Your task to perform on an android device: refresh tabs in the chrome app Image 0: 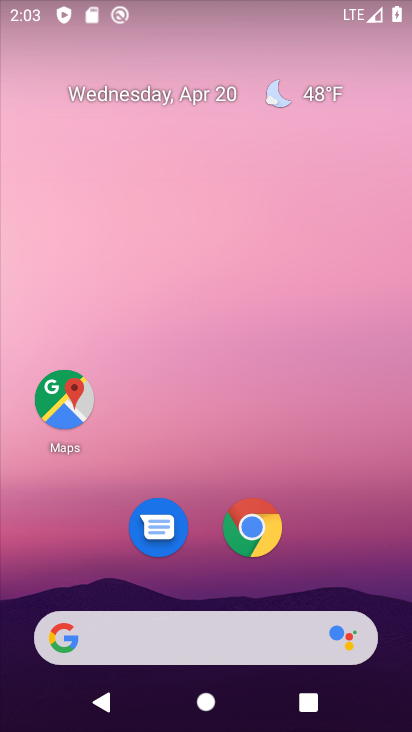
Step 0: click (260, 527)
Your task to perform on an android device: refresh tabs in the chrome app Image 1: 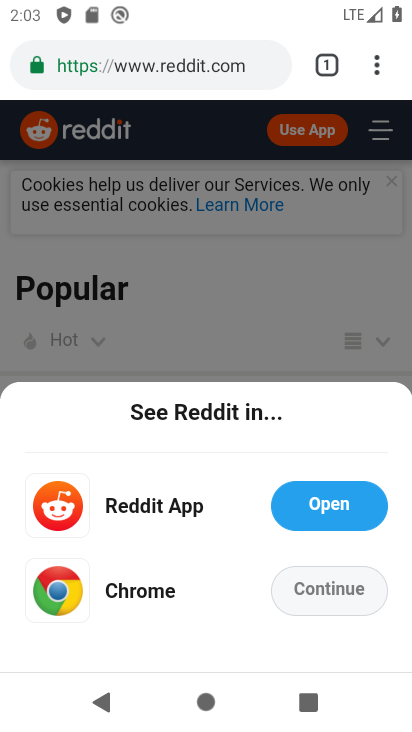
Step 1: click (376, 69)
Your task to perform on an android device: refresh tabs in the chrome app Image 2: 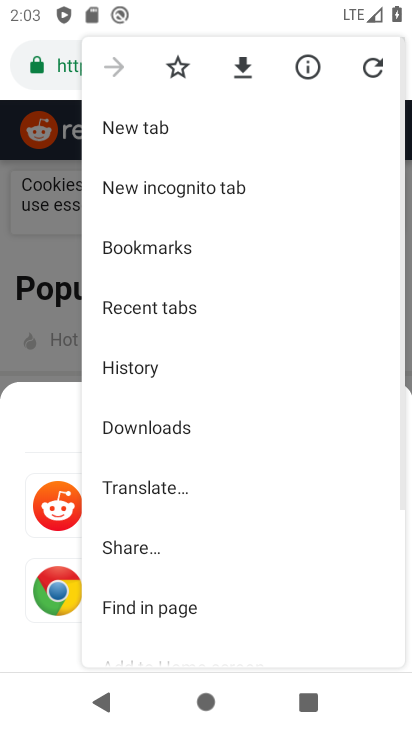
Step 2: click (376, 69)
Your task to perform on an android device: refresh tabs in the chrome app Image 3: 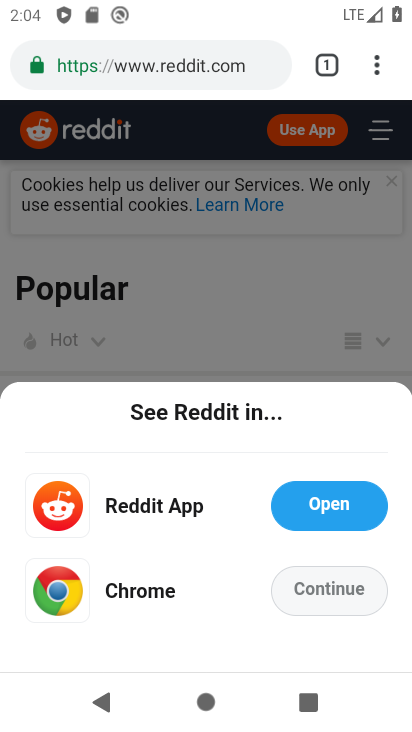
Step 3: task complete